Your task to perform on an android device: show emergency info Image 0: 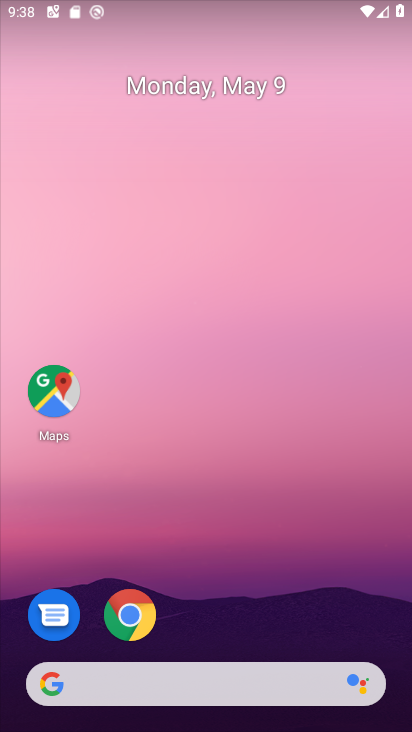
Step 0: drag from (260, 699) to (210, 254)
Your task to perform on an android device: show emergency info Image 1: 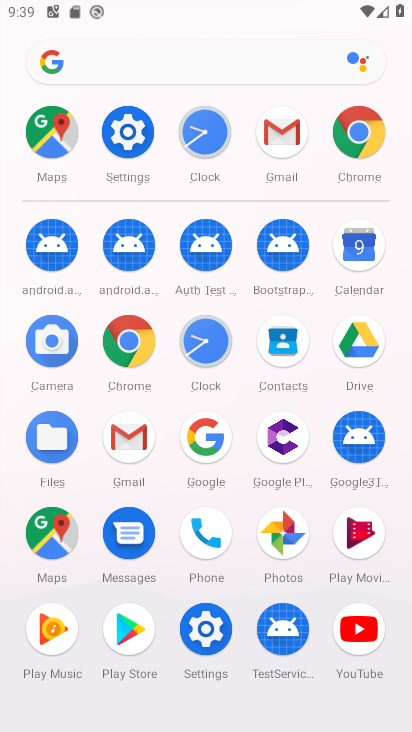
Step 1: click (129, 132)
Your task to perform on an android device: show emergency info Image 2: 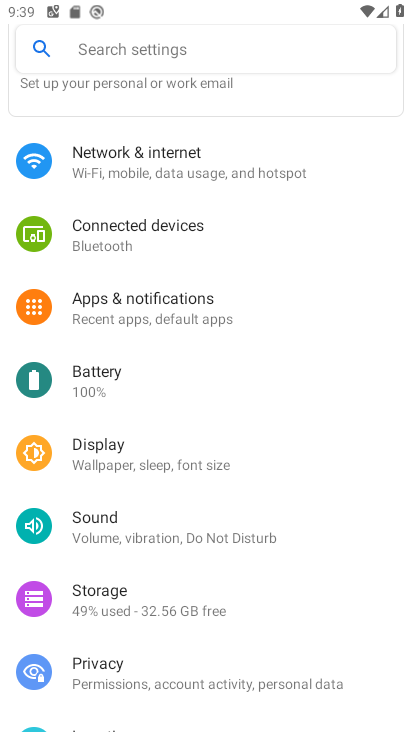
Step 2: click (120, 51)
Your task to perform on an android device: show emergency info Image 3: 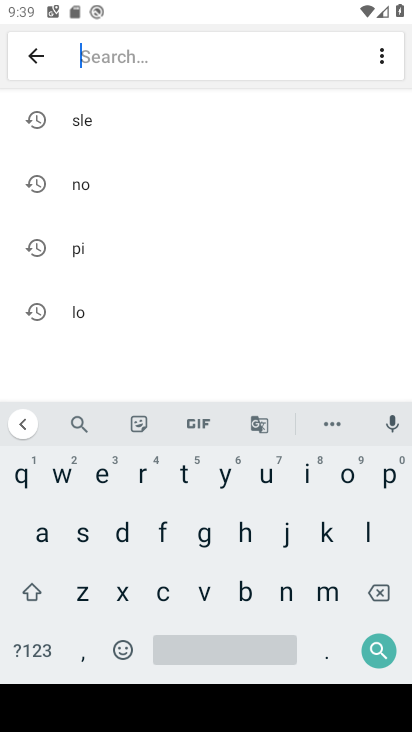
Step 3: click (107, 477)
Your task to perform on an android device: show emergency info Image 4: 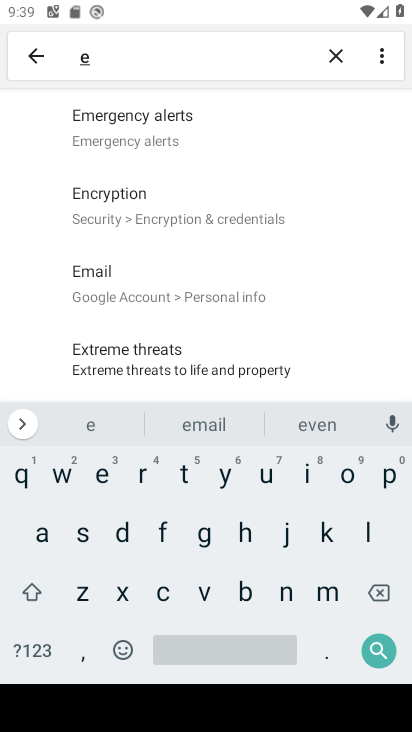
Step 4: click (329, 588)
Your task to perform on an android device: show emergency info Image 5: 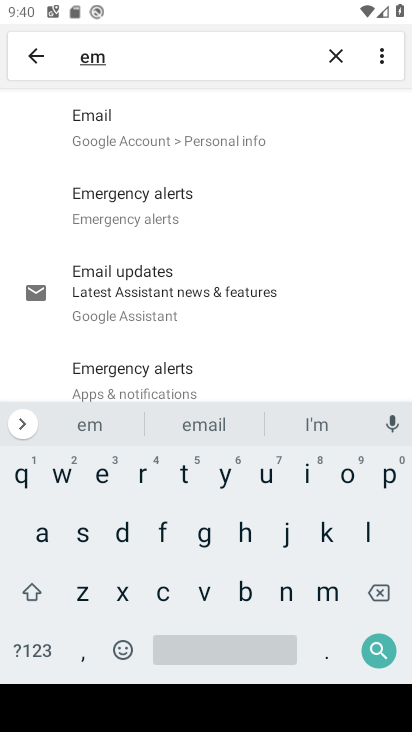
Step 5: click (107, 479)
Your task to perform on an android device: show emergency info Image 6: 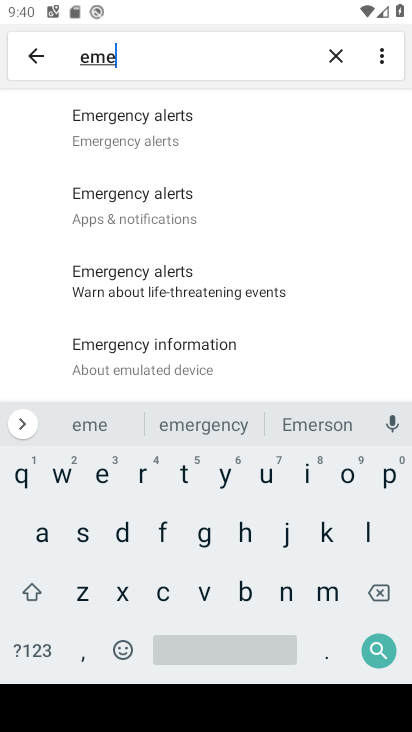
Step 6: click (185, 414)
Your task to perform on an android device: show emergency info Image 7: 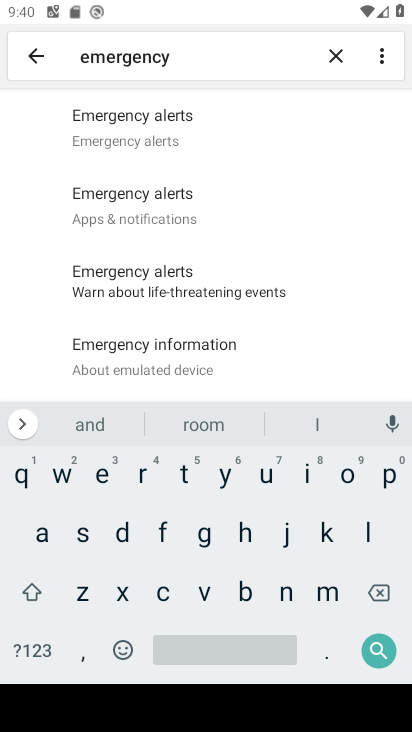
Step 7: click (305, 474)
Your task to perform on an android device: show emergency info Image 8: 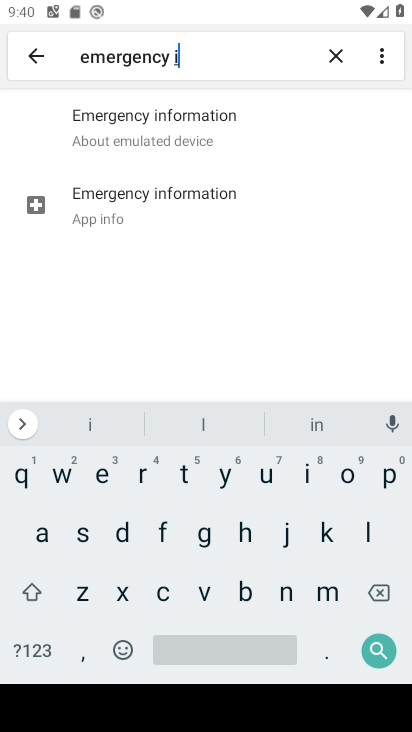
Step 8: click (148, 136)
Your task to perform on an android device: show emergency info Image 9: 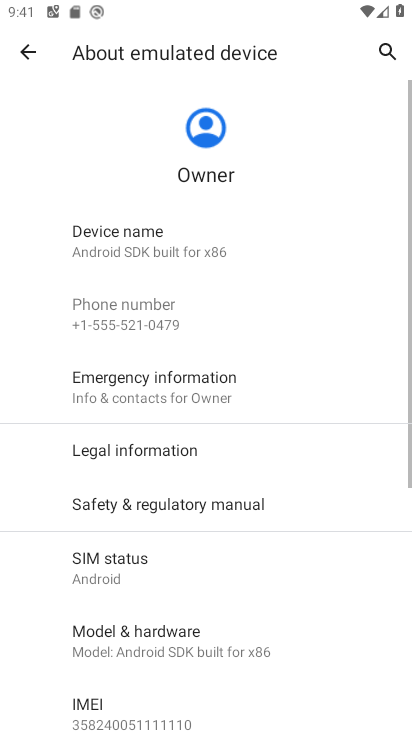
Step 9: click (199, 389)
Your task to perform on an android device: show emergency info Image 10: 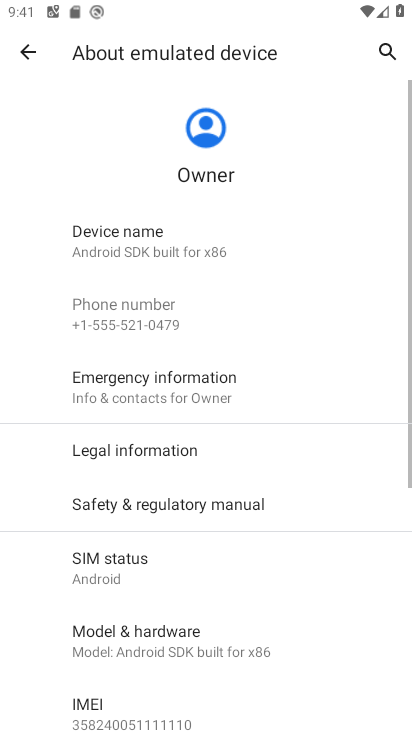
Step 10: task complete